Your task to perform on an android device: change notification settings in the gmail app Image 0: 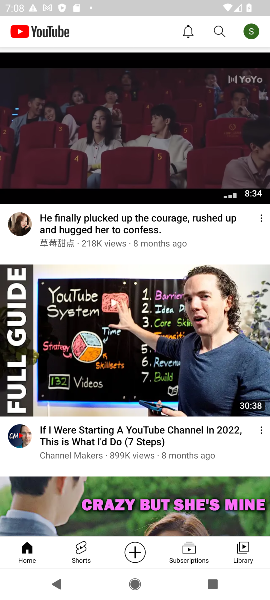
Step 0: press home button
Your task to perform on an android device: change notification settings in the gmail app Image 1: 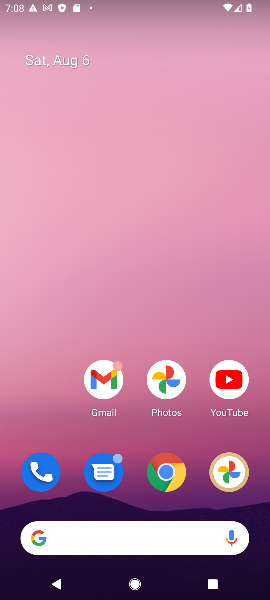
Step 1: click (102, 378)
Your task to perform on an android device: change notification settings in the gmail app Image 2: 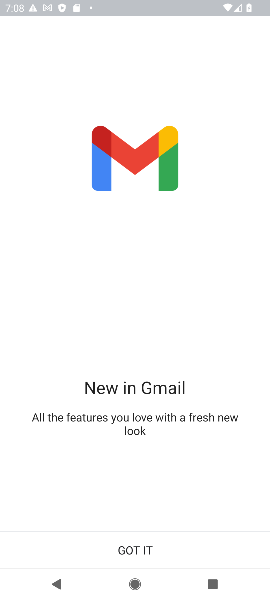
Step 2: click (137, 546)
Your task to perform on an android device: change notification settings in the gmail app Image 3: 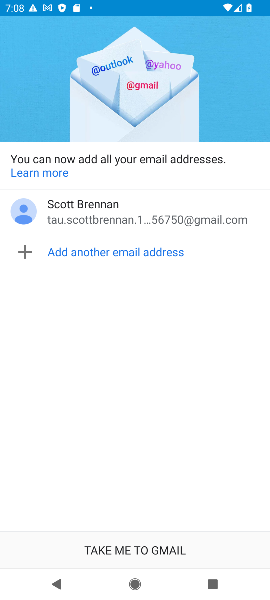
Step 3: click (137, 546)
Your task to perform on an android device: change notification settings in the gmail app Image 4: 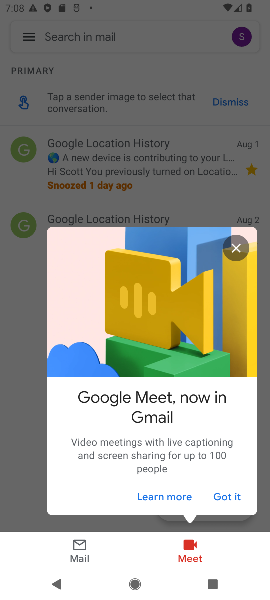
Step 4: click (223, 495)
Your task to perform on an android device: change notification settings in the gmail app Image 5: 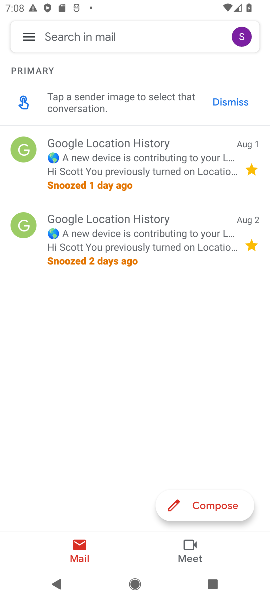
Step 5: click (27, 37)
Your task to perform on an android device: change notification settings in the gmail app Image 6: 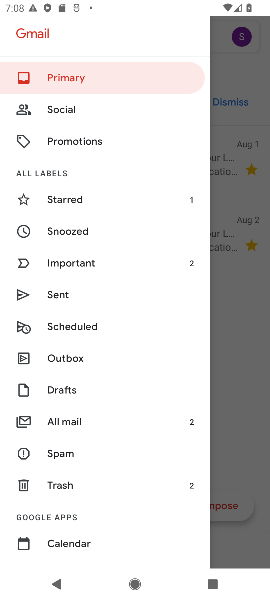
Step 6: drag from (122, 514) to (121, 215)
Your task to perform on an android device: change notification settings in the gmail app Image 7: 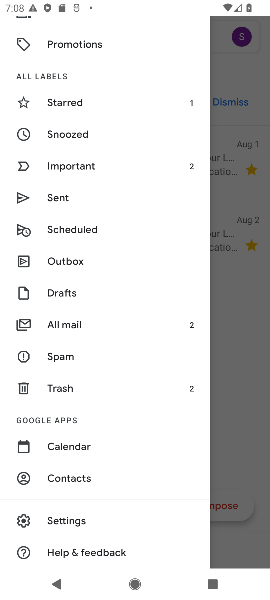
Step 7: click (64, 518)
Your task to perform on an android device: change notification settings in the gmail app Image 8: 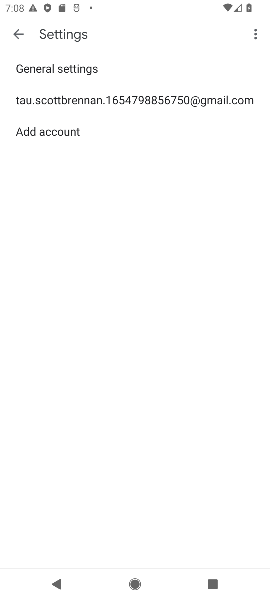
Step 8: click (122, 103)
Your task to perform on an android device: change notification settings in the gmail app Image 9: 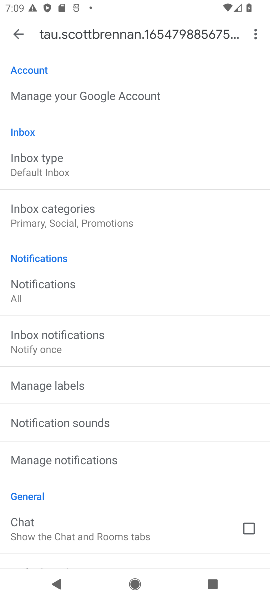
Step 9: click (87, 454)
Your task to perform on an android device: change notification settings in the gmail app Image 10: 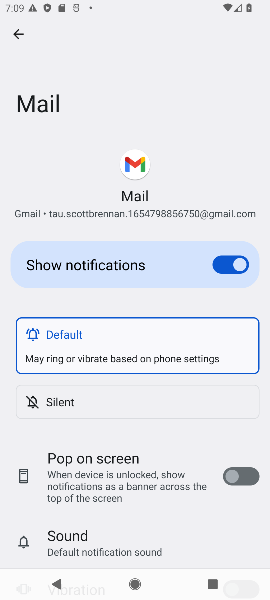
Step 10: click (215, 261)
Your task to perform on an android device: change notification settings in the gmail app Image 11: 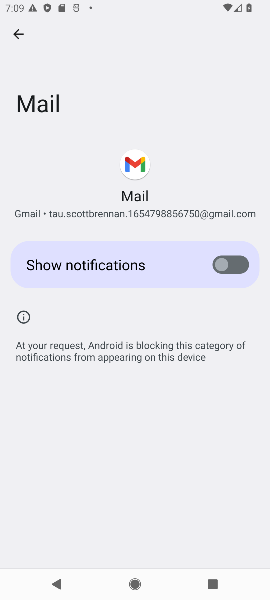
Step 11: task complete